Your task to perform on an android device: set an alarm Image 0: 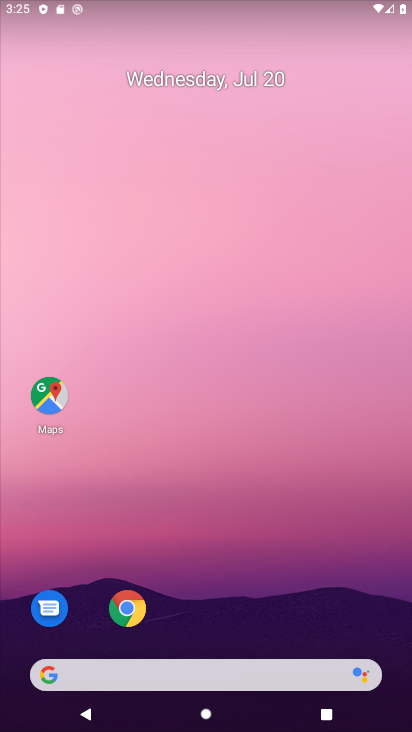
Step 0: drag from (247, 572) to (252, 189)
Your task to perform on an android device: set an alarm Image 1: 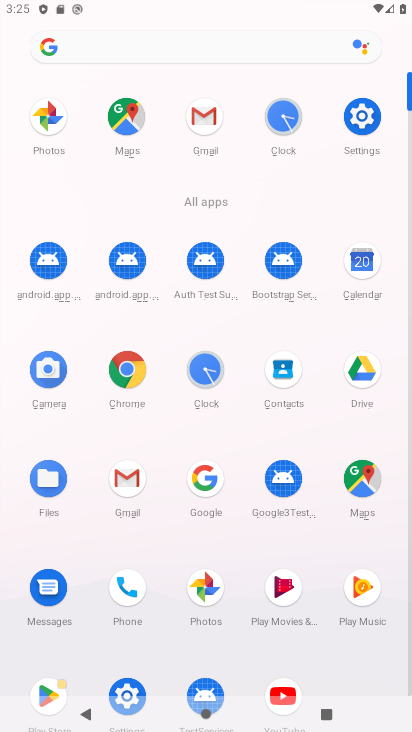
Step 1: click (208, 370)
Your task to perform on an android device: set an alarm Image 2: 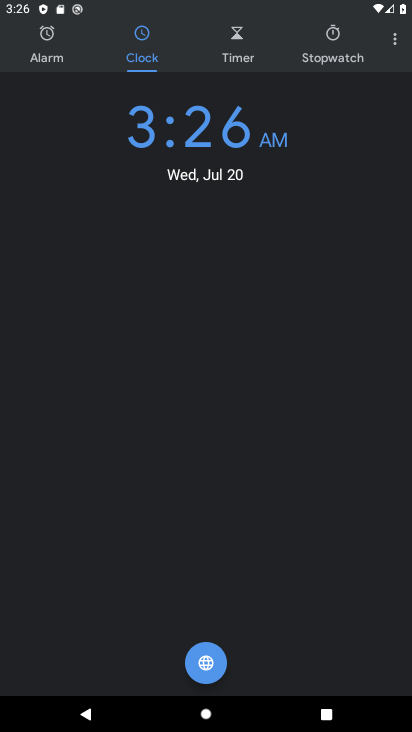
Step 2: click (56, 48)
Your task to perform on an android device: set an alarm Image 3: 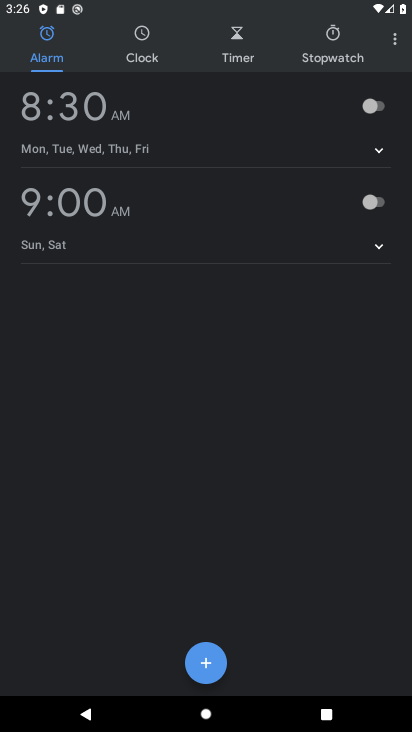
Step 3: click (372, 101)
Your task to perform on an android device: set an alarm Image 4: 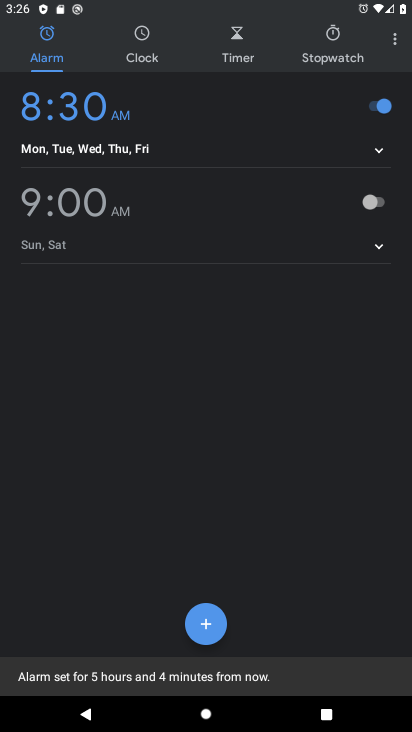
Step 4: task complete